Your task to perform on an android device: Add amazon basics triple a to the cart on amazon Image 0: 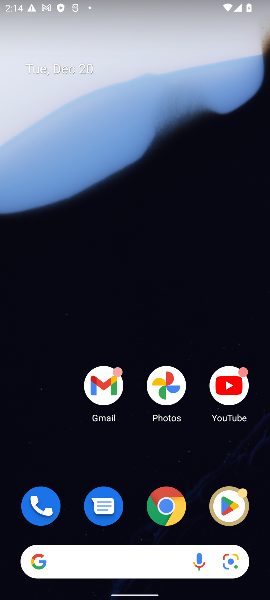
Step 0: click (168, 504)
Your task to perform on an android device: Add amazon basics triple a to the cart on amazon Image 1: 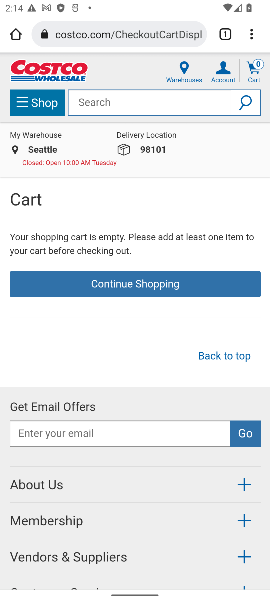
Step 1: click (119, 31)
Your task to perform on an android device: Add amazon basics triple a to the cart on amazon Image 2: 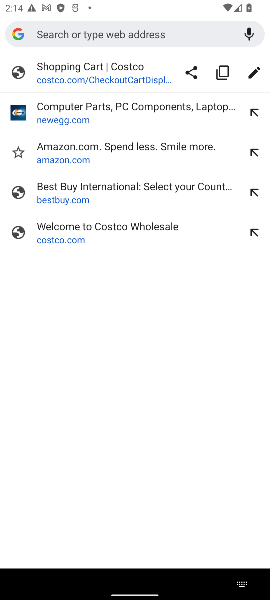
Step 2: click (135, 153)
Your task to perform on an android device: Add amazon basics triple a to the cart on amazon Image 3: 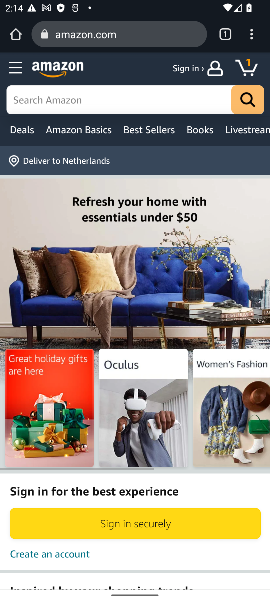
Step 3: click (139, 99)
Your task to perform on an android device: Add amazon basics triple a to the cart on amazon Image 4: 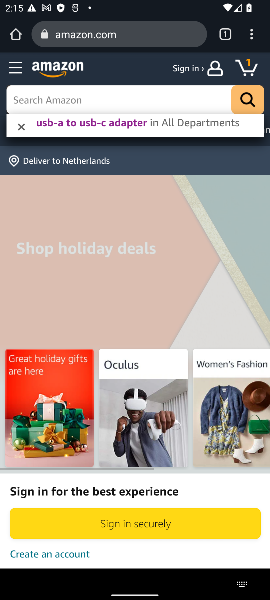
Step 4: type "amazon basics triple a"
Your task to perform on an android device: Add amazon basics triple a to the cart on amazon Image 5: 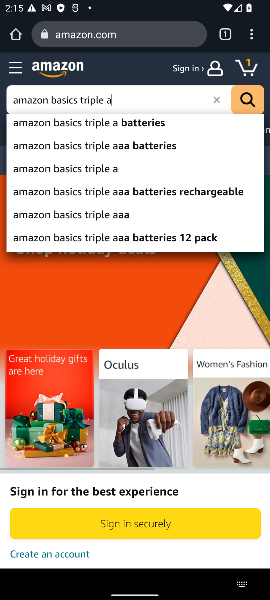
Step 5: click (96, 125)
Your task to perform on an android device: Add amazon basics triple a to the cart on amazon Image 6: 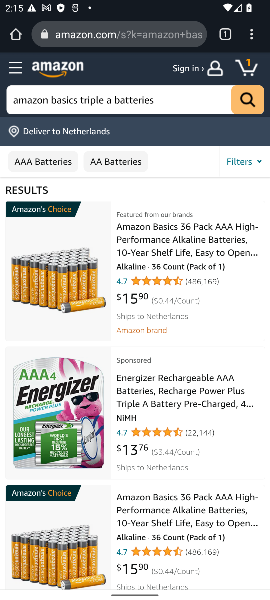
Step 6: click (233, 250)
Your task to perform on an android device: Add amazon basics triple a to the cart on amazon Image 7: 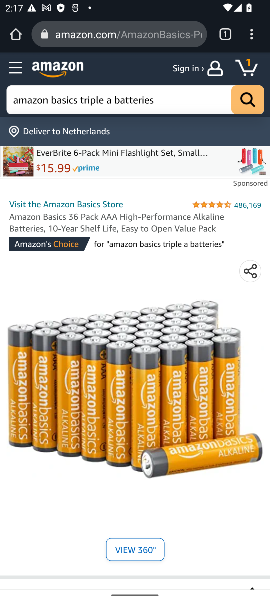
Step 7: drag from (176, 537) to (131, 159)
Your task to perform on an android device: Add amazon basics triple a to the cart on amazon Image 8: 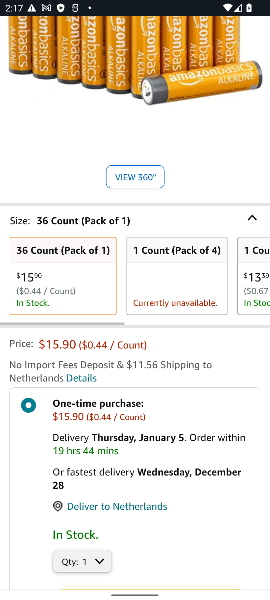
Step 8: drag from (188, 509) to (187, 144)
Your task to perform on an android device: Add amazon basics triple a to the cart on amazon Image 9: 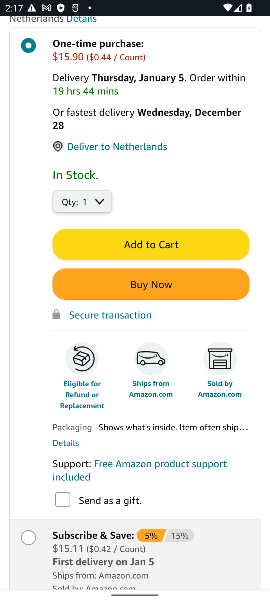
Step 9: click (163, 241)
Your task to perform on an android device: Add amazon basics triple a to the cart on amazon Image 10: 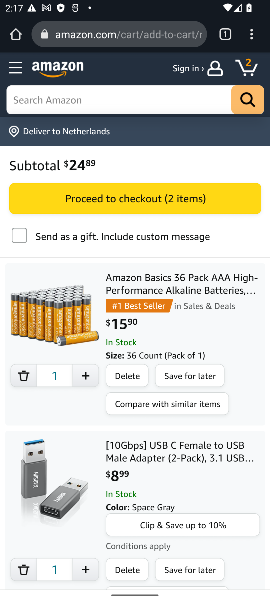
Step 10: task complete